Your task to perform on an android device: Open the phone app and click the voicemail tab. Image 0: 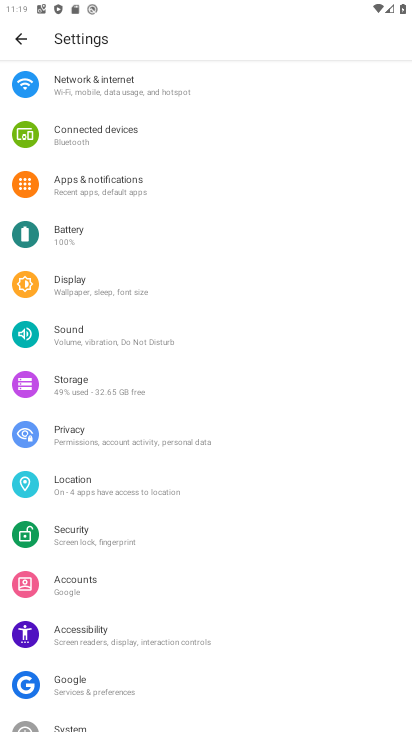
Step 0: press home button
Your task to perform on an android device: Open the phone app and click the voicemail tab. Image 1: 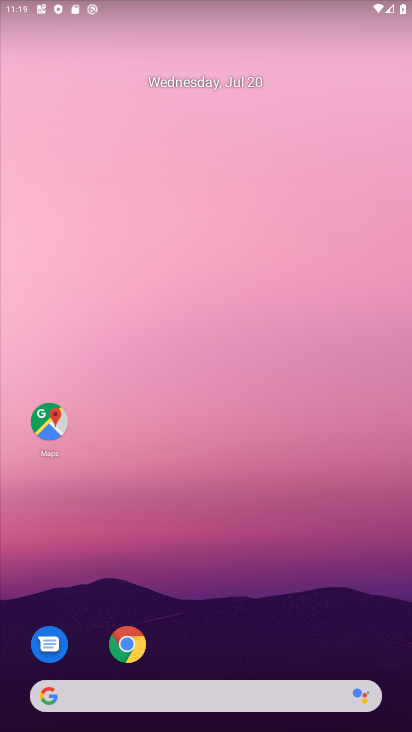
Step 1: drag from (190, 640) to (209, 297)
Your task to perform on an android device: Open the phone app and click the voicemail tab. Image 2: 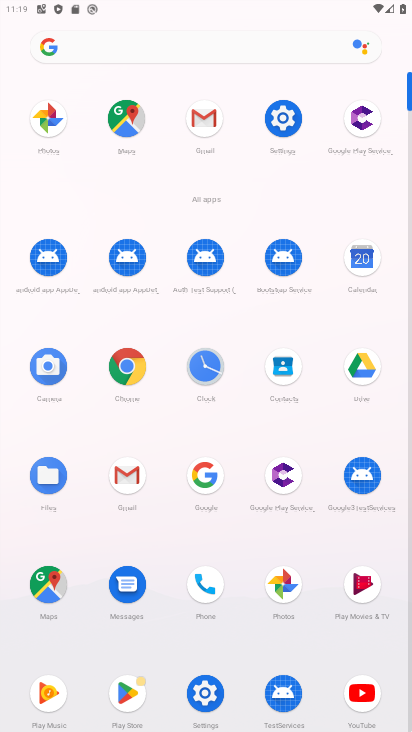
Step 2: click (216, 585)
Your task to perform on an android device: Open the phone app and click the voicemail tab. Image 3: 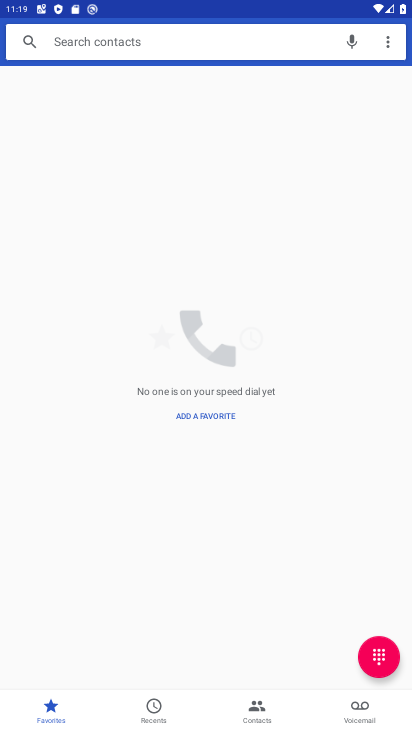
Step 3: click (363, 704)
Your task to perform on an android device: Open the phone app and click the voicemail tab. Image 4: 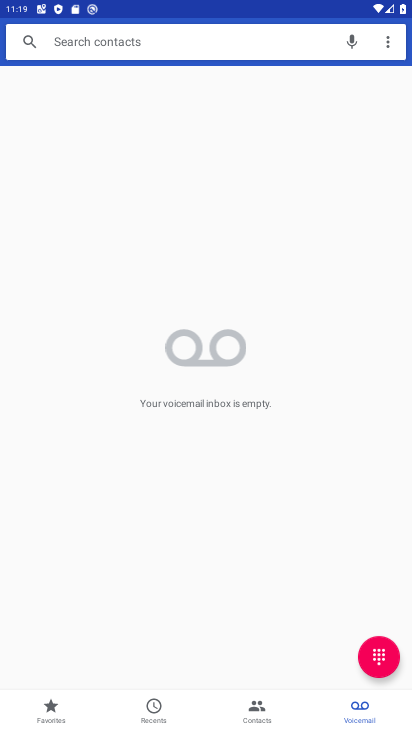
Step 4: task complete